Your task to perform on an android device: Go to calendar. Show me events next week Image 0: 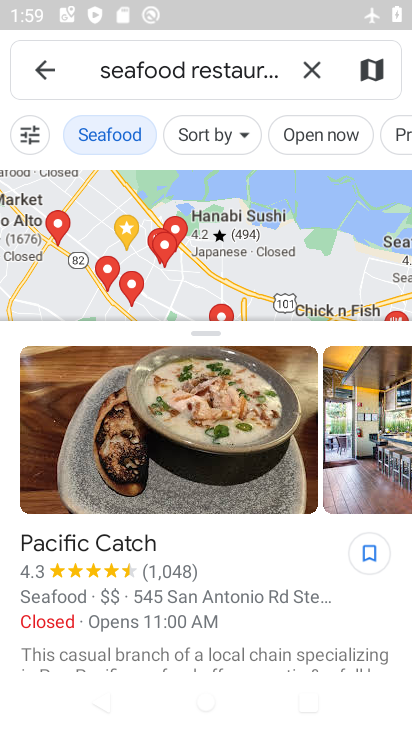
Step 0: press home button
Your task to perform on an android device: Go to calendar. Show me events next week Image 1: 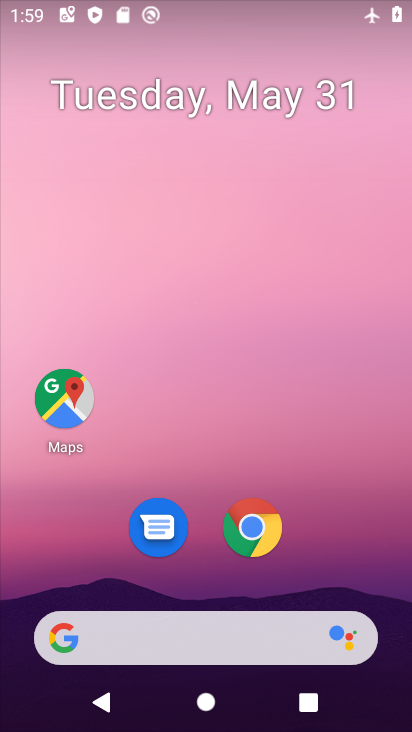
Step 1: drag from (352, 533) to (291, 121)
Your task to perform on an android device: Go to calendar. Show me events next week Image 2: 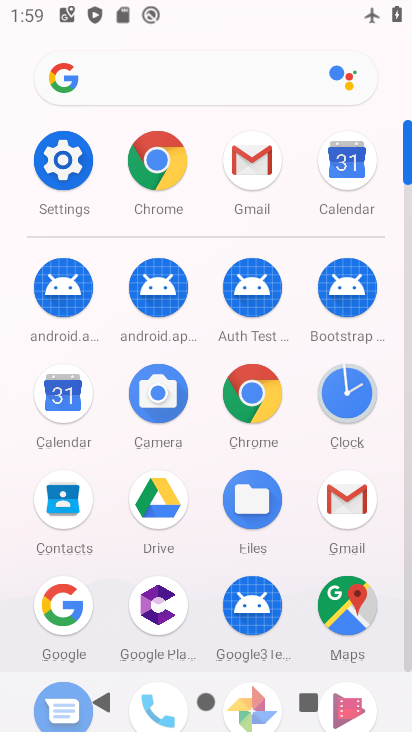
Step 2: click (336, 177)
Your task to perform on an android device: Go to calendar. Show me events next week Image 3: 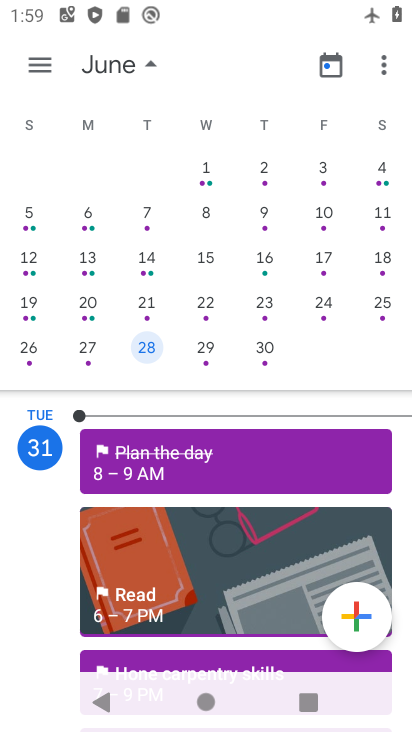
Step 3: drag from (268, 318) to (3, 339)
Your task to perform on an android device: Go to calendar. Show me events next week Image 4: 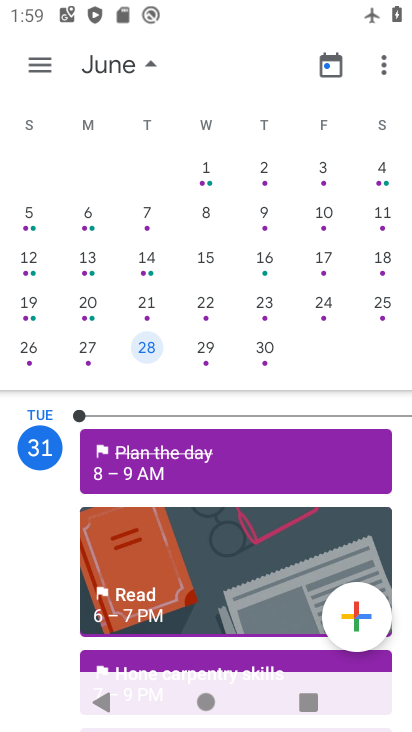
Step 4: click (199, 177)
Your task to perform on an android device: Go to calendar. Show me events next week Image 5: 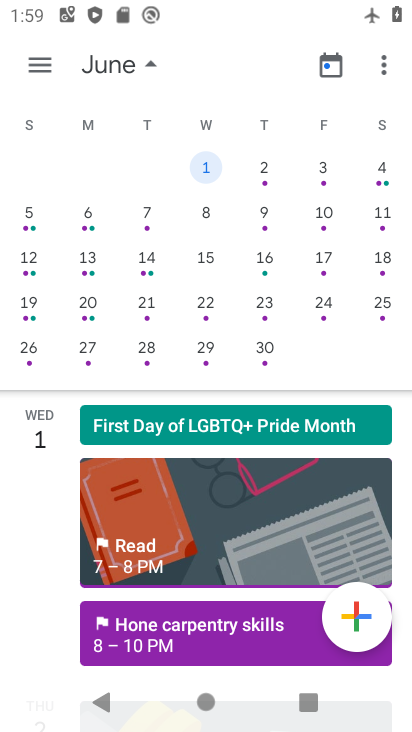
Step 5: task complete